Your task to perform on an android device: Go to calendar. Show me events next week Image 0: 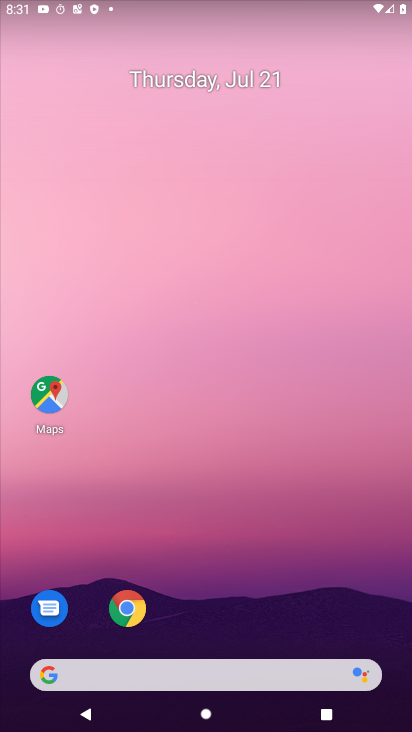
Step 0: drag from (337, 615) to (307, 113)
Your task to perform on an android device: Go to calendar. Show me events next week Image 1: 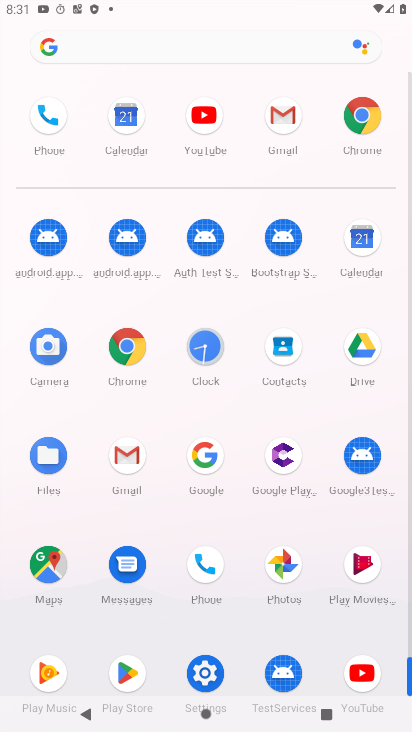
Step 1: click (380, 260)
Your task to perform on an android device: Go to calendar. Show me events next week Image 2: 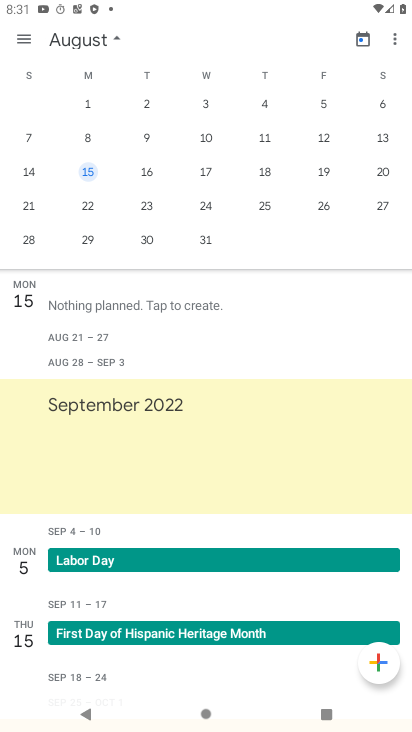
Step 2: drag from (70, 253) to (359, 238)
Your task to perform on an android device: Go to calendar. Show me events next week Image 3: 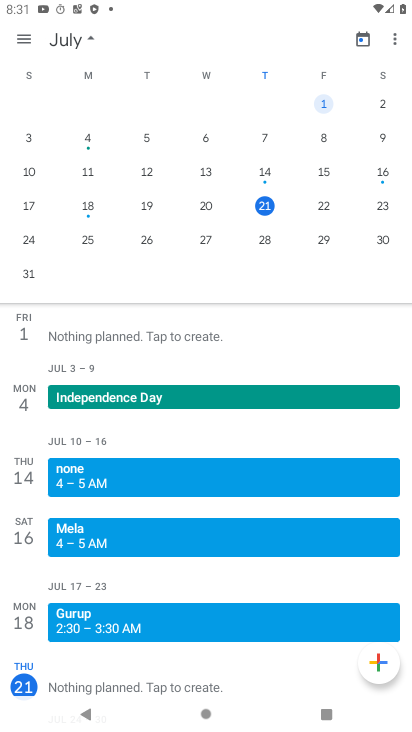
Step 3: click (264, 237)
Your task to perform on an android device: Go to calendar. Show me events next week Image 4: 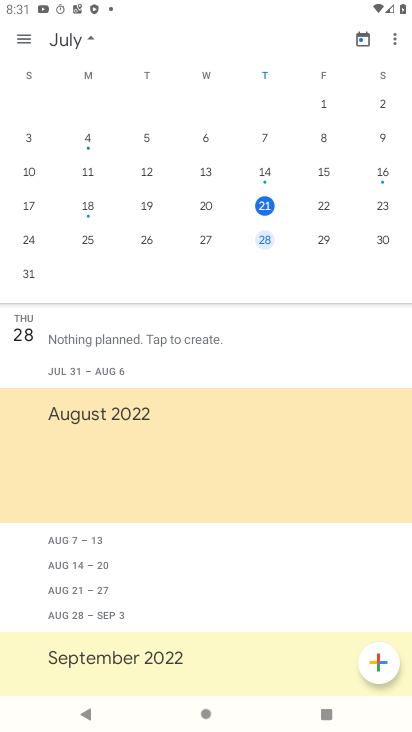
Step 4: click (91, 34)
Your task to perform on an android device: Go to calendar. Show me events next week Image 5: 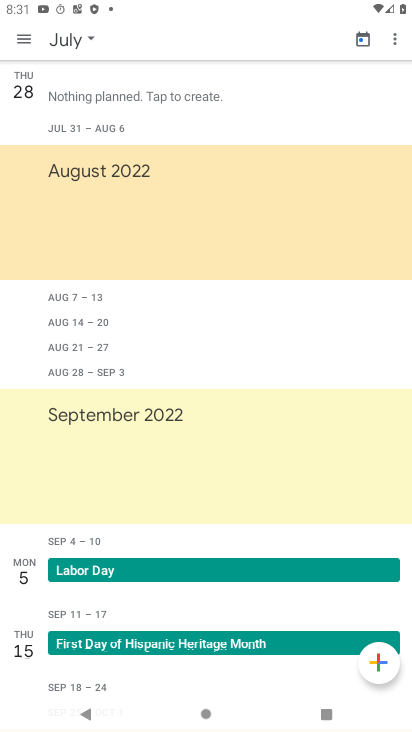
Step 5: task complete